Your task to perform on an android device: turn on the 24-hour format for clock Image 0: 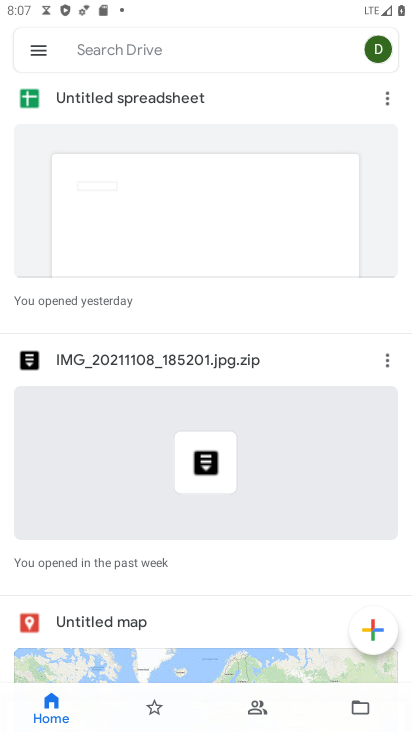
Step 0: press home button
Your task to perform on an android device: turn on the 24-hour format for clock Image 1: 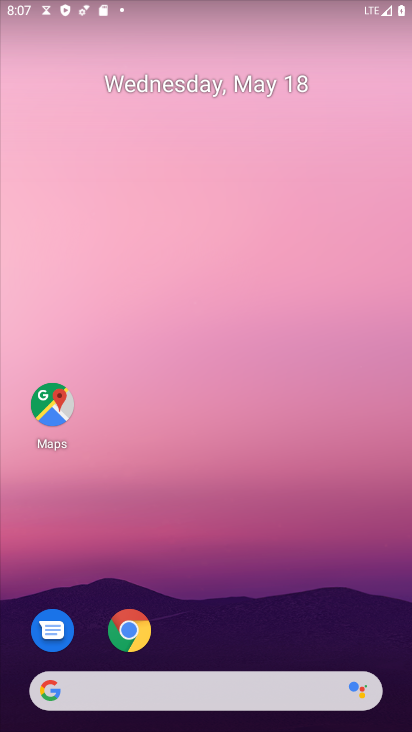
Step 1: drag from (226, 517) to (207, 189)
Your task to perform on an android device: turn on the 24-hour format for clock Image 2: 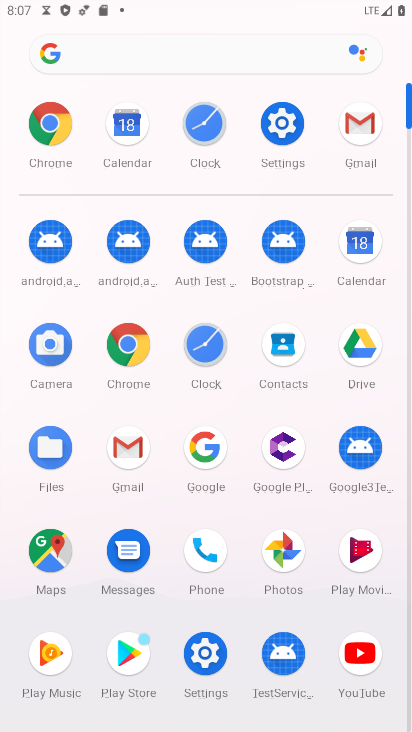
Step 2: click (207, 114)
Your task to perform on an android device: turn on the 24-hour format for clock Image 3: 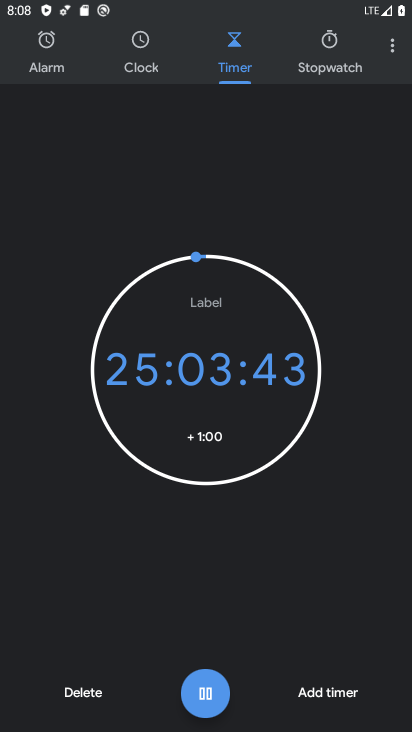
Step 3: click (391, 48)
Your task to perform on an android device: turn on the 24-hour format for clock Image 4: 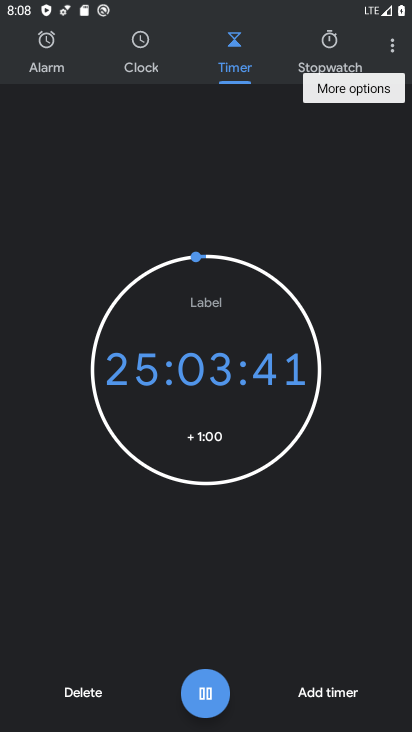
Step 4: click (384, 42)
Your task to perform on an android device: turn on the 24-hour format for clock Image 5: 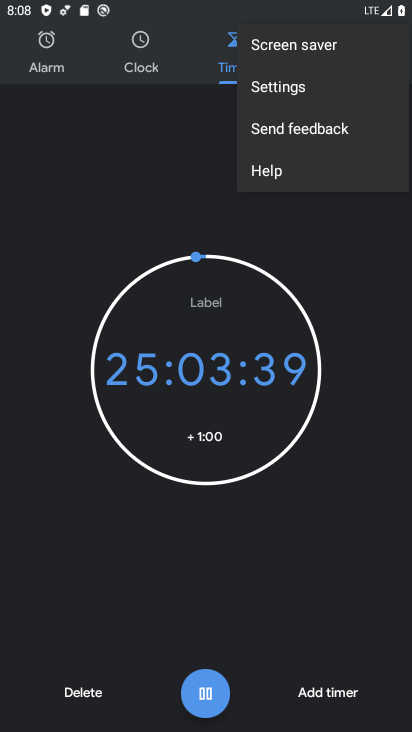
Step 5: click (305, 87)
Your task to perform on an android device: turn on the 24-hour format for clock Image 6: 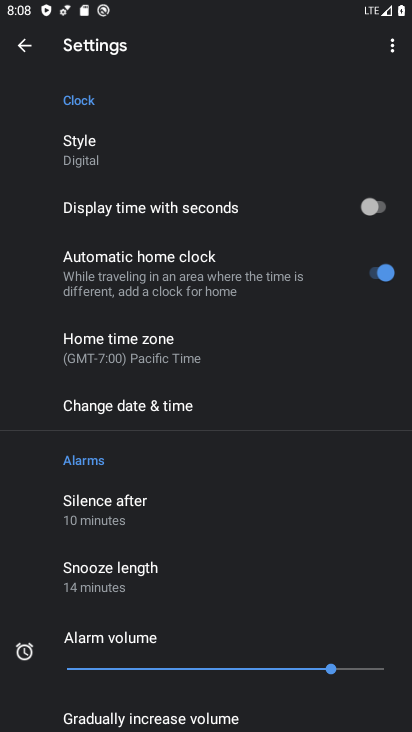
Step 6: click (120, 401)
Your task to perform on an android device: turn on the 24-hour format for clock Image 7: 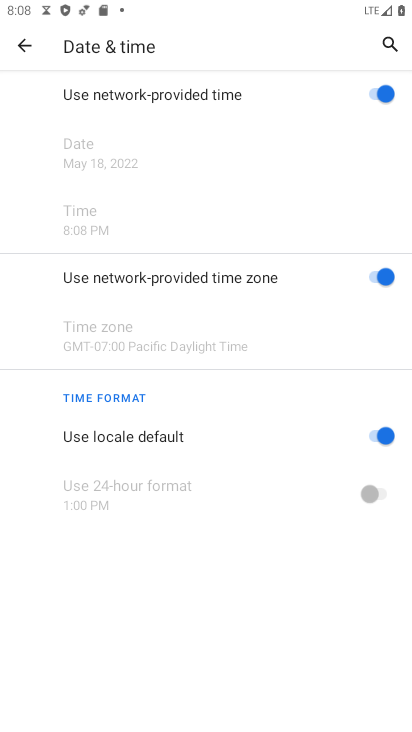
Step 7: click (377, 432)
Your task to perform on an android device: turn on the 24-hour format for clock Image 8: 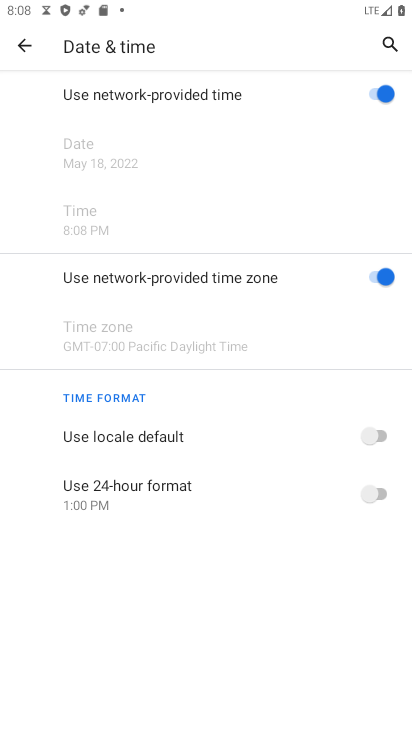
Step 8: task complete